Your task to perform on an android device: delete the emails in spam in the gmail app Image 0: 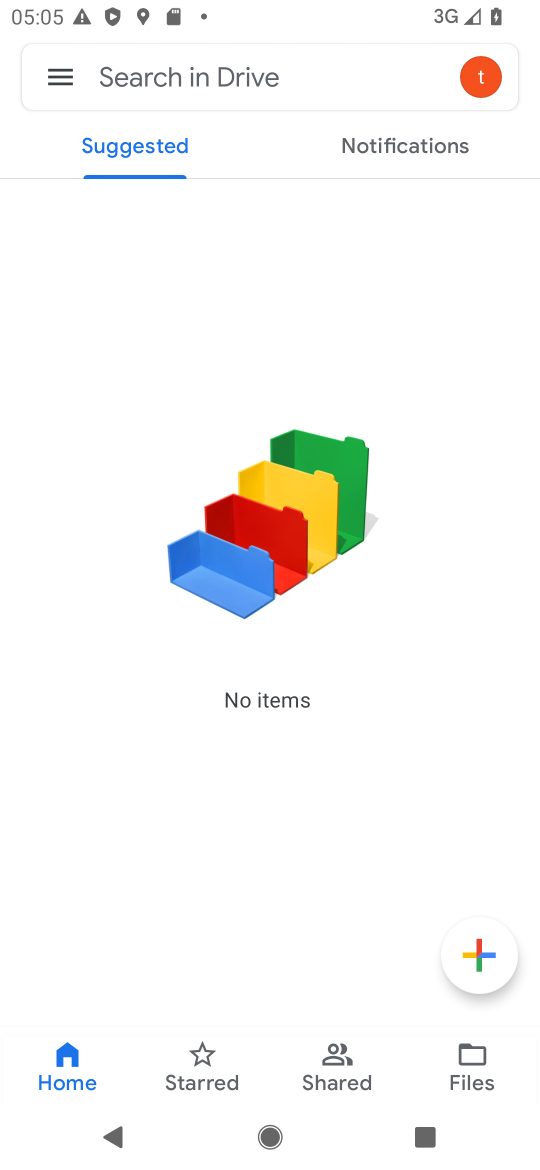
Step 0: press home button
Your task to perform on an android device: delete the emails in spam in the gmail app Image 1: 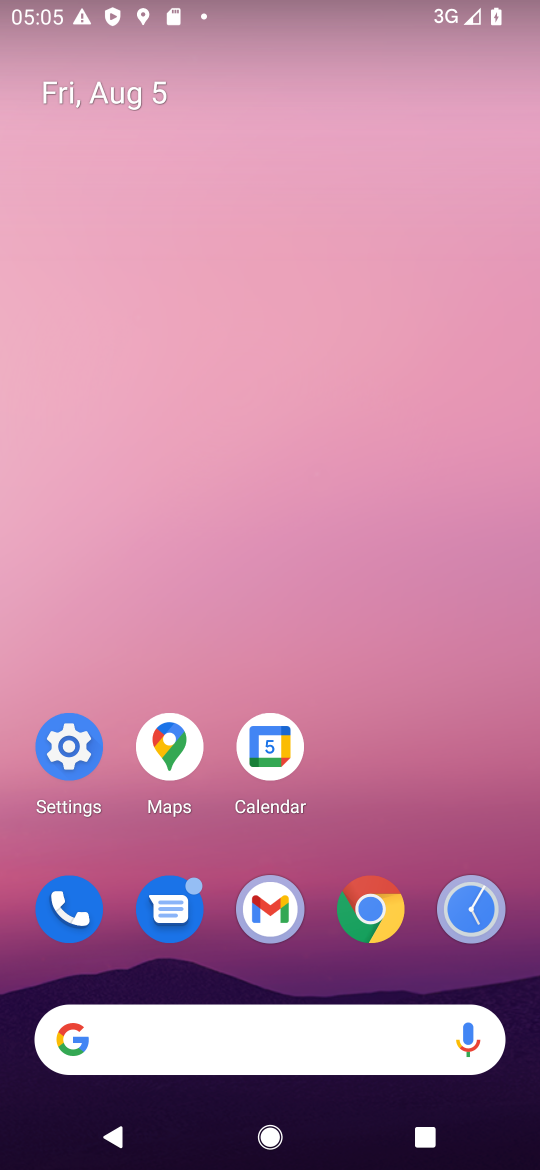
Step 1: click (267, 907)
Your task to perform on an android device: delete the emails in spam in the gmail app Image 2: 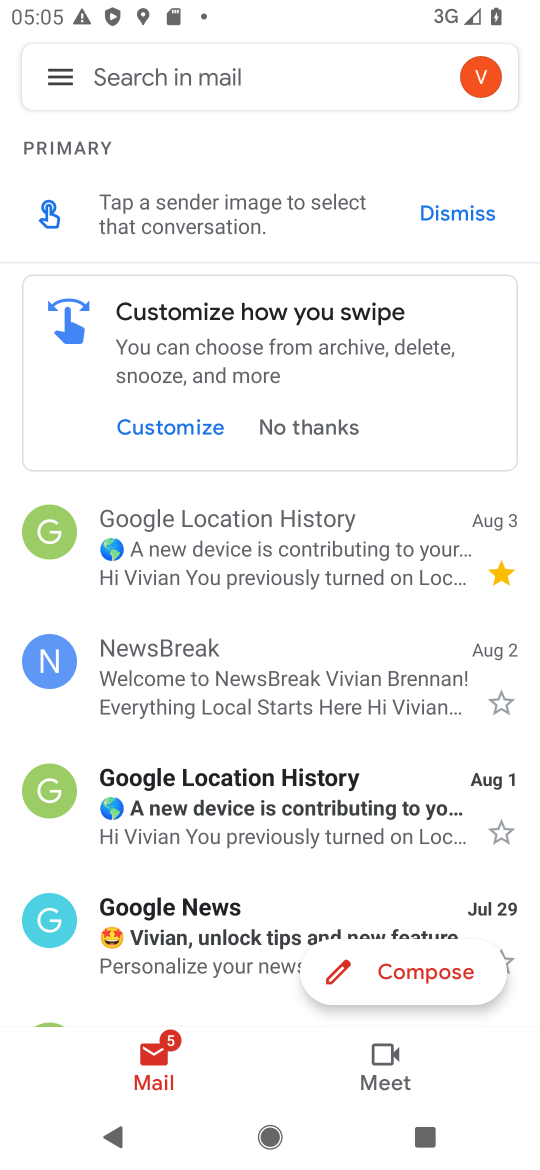
Step 2: click (65, 78)
Your task to perform on an android device: delete the emails in spam in the gmail app Image 3: 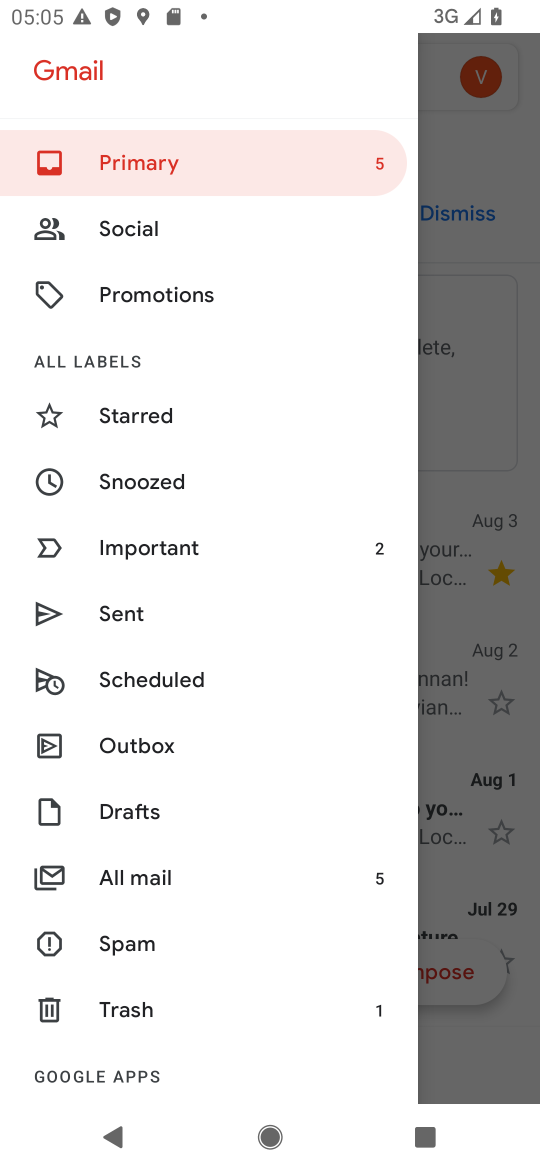
Step 3: click (130, 940)
Your task to perform on an android device: delete the emails in spam in the gmail app Image 4: 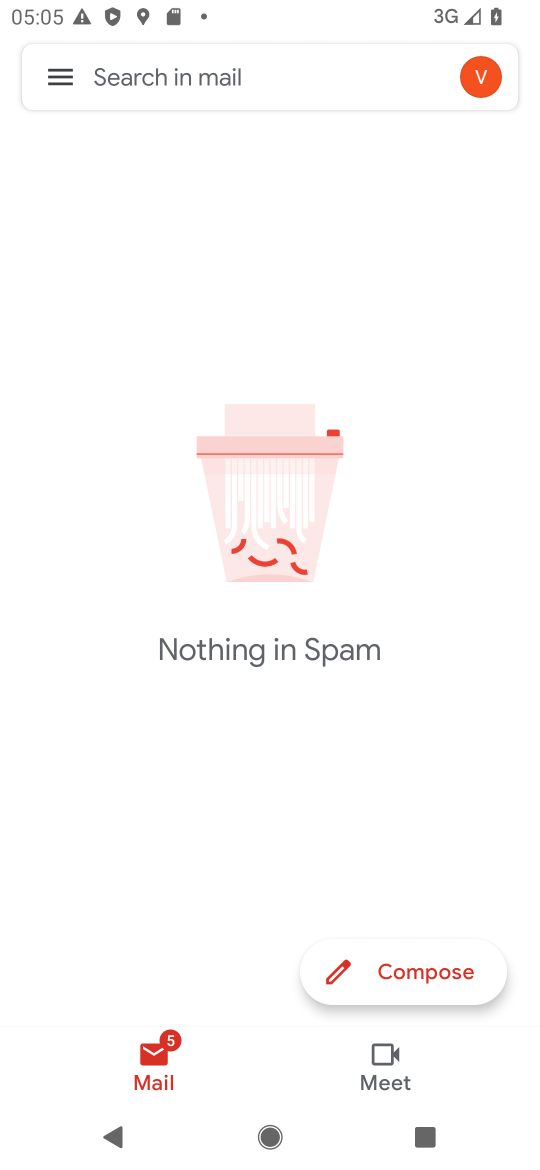
Step 4: task complete